Your task to perform on an android device: see creations saved in the google photos Image 0: 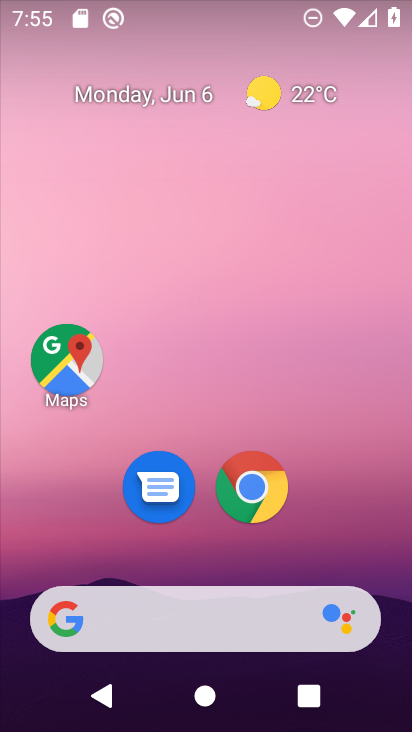
Step 0: drag from (384, 557) to (281, 75)
Your task to perform on an android device: see creations saved in the google photos Image 1: 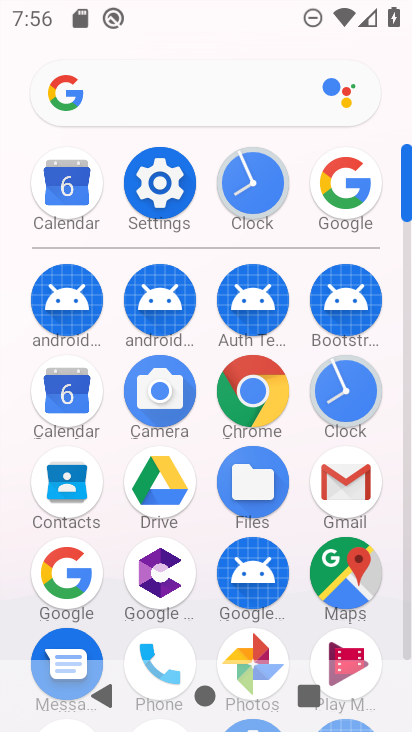
Step 1: click (266, 647)
Your task to perform on an android device: see creations saved in the google photos Image 2: 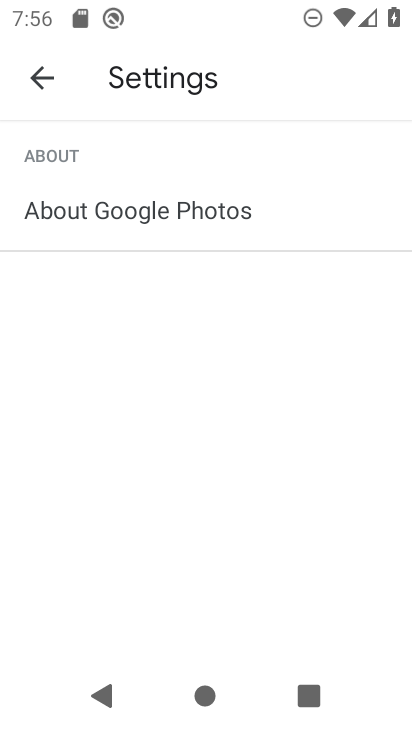
Step 2: press back button
Your task to perform on an android device: see creations saved in the google photos Image 3: 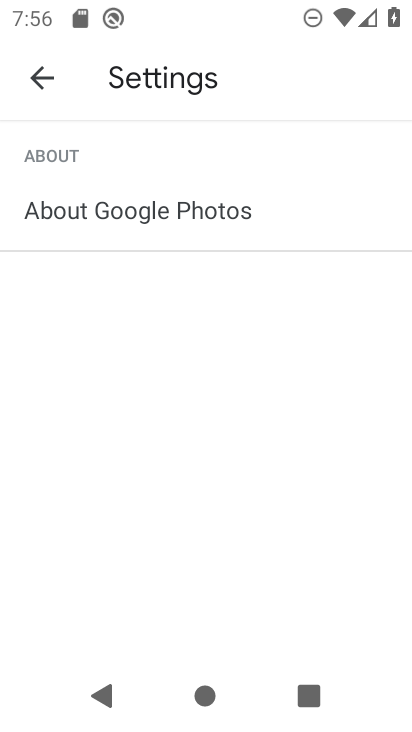
Step 3: press back button
Your task to perform on an android device: see creations saved in the google photos Image 4: 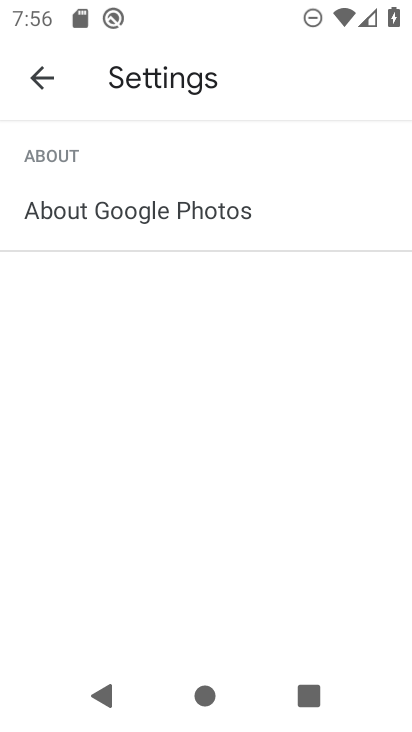
Step 4: press back button
Your task to perform on an android device: see creations saved in the google photos Image 5: 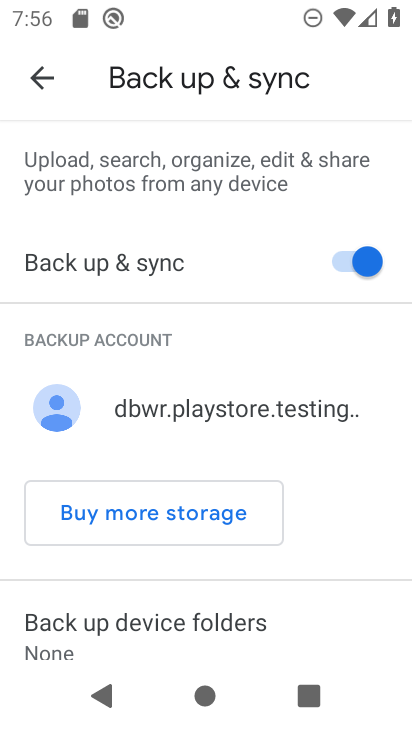
Step 5: press back button
Your task to perform on an android device: see creations saved in the google photos Image 6: 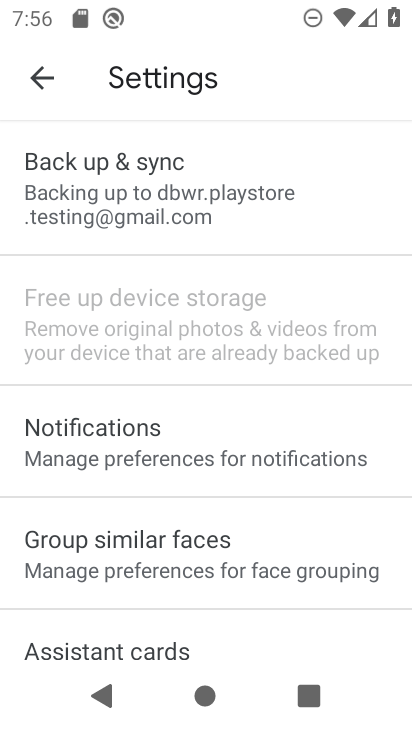
Step 6: press back button
Your task to perform on an android device: see creations saved in the google photos Image 7: 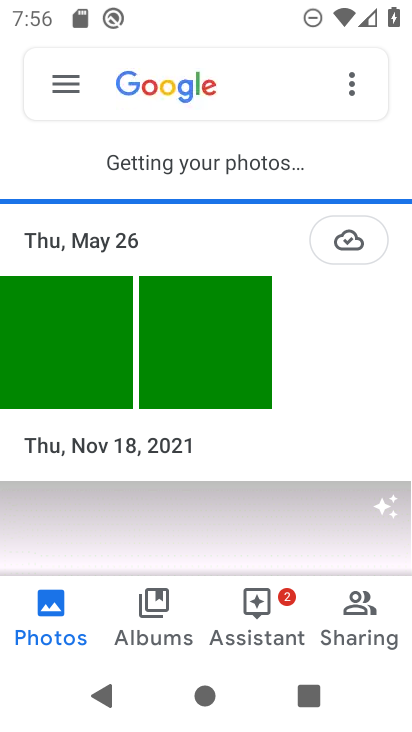
Step 7: click (183, 82)
Your task to perform on an android device: see creations saved in the google photos Image 8: 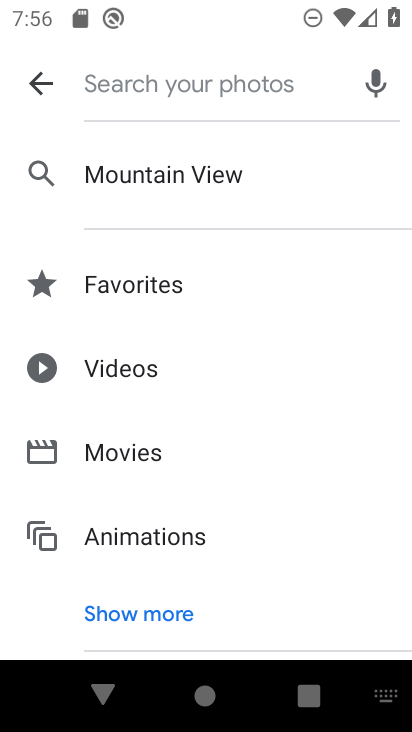
Step 8: click (123, 611)
Your task to perform on an android device: see creations saved in the google photos Image 9: 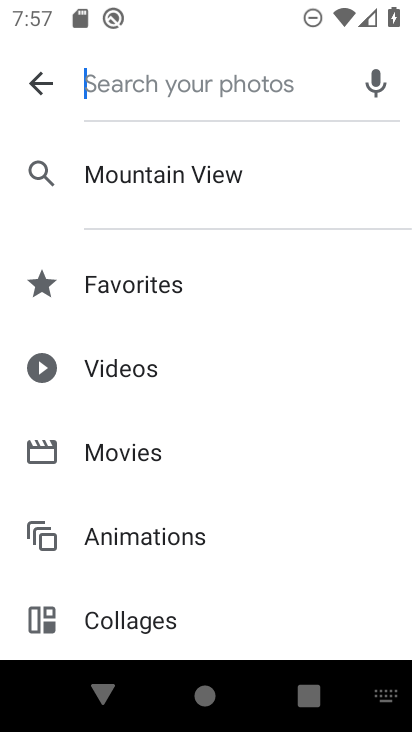
Step 9: drag from (203, 515) to (207, 176)
Your task to perform on an android device: see creations saved in the google photos Image 10: 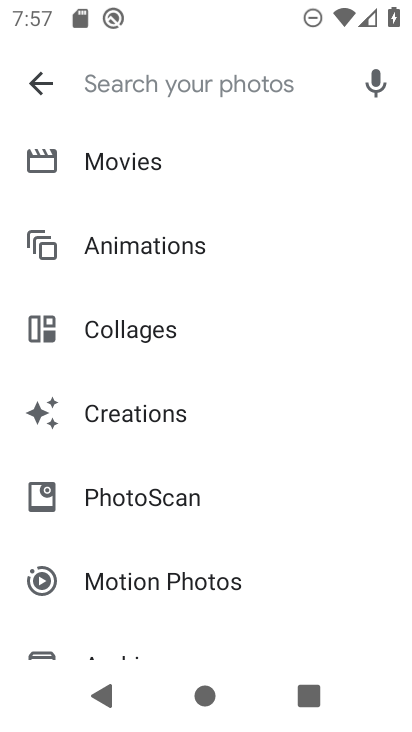
Step 10: click (106, 413)
Your task to perform on an android device: see creations saved in the google photos Image 11: 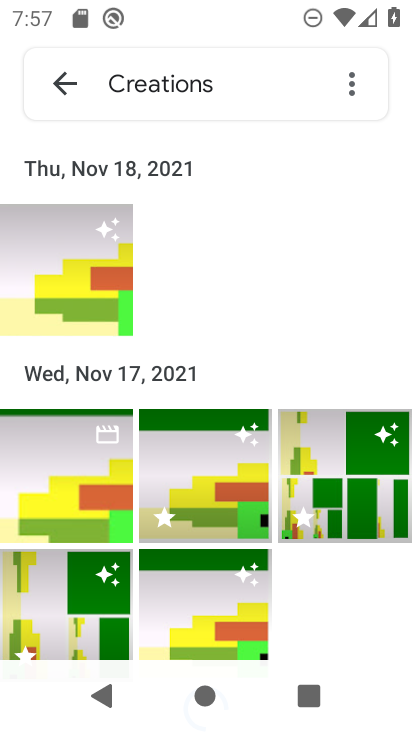
Step 11: task complete